Your task to perform on an android device: Go to Yahoo.com Image 0: 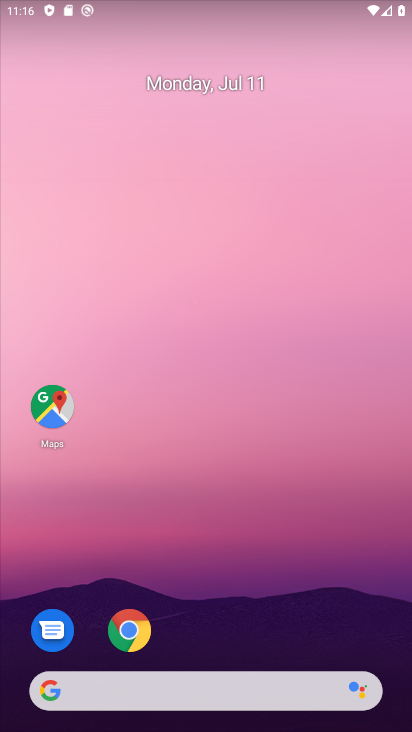
Step 0: click (131, 632)
Your task to perform on an android device: Go to Yahoo.com Image 1: 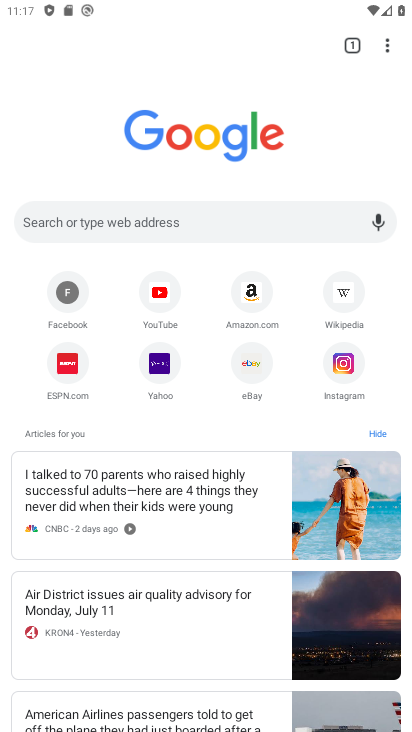
Step 1: click (167, 221)
Your task to perform on an android device: Go to Yahoo.com Image 2: 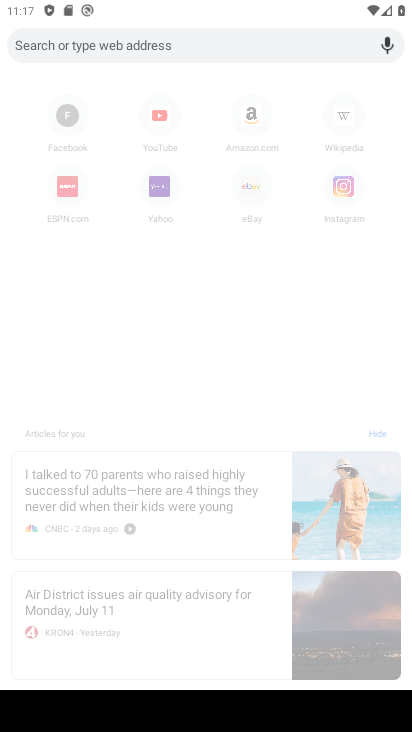
Step 2: type "Yahoo.com"
Your task to perform on an android device: Go to Yahoo.com Image 3: 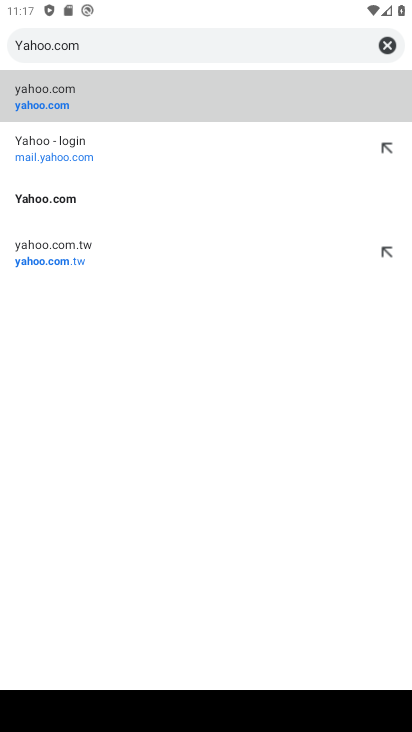
Step 3: click (66, 195)
Your task to perform on an android device: Go to Yahoo.com Image 4: 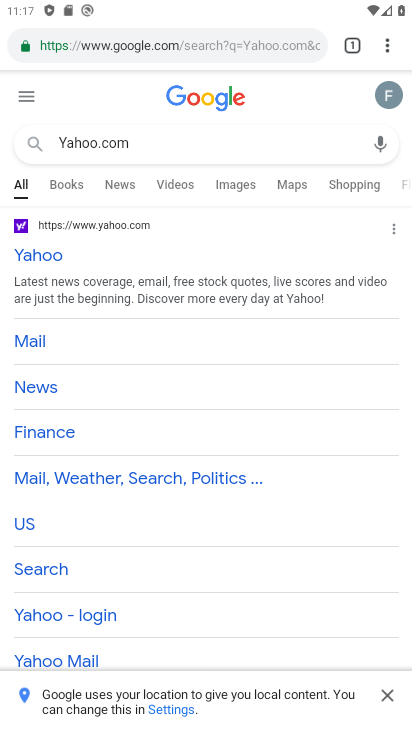
Step 4: click (34, 256)
Your task to perform on an android device: Go to Yahoo.com Image 5: 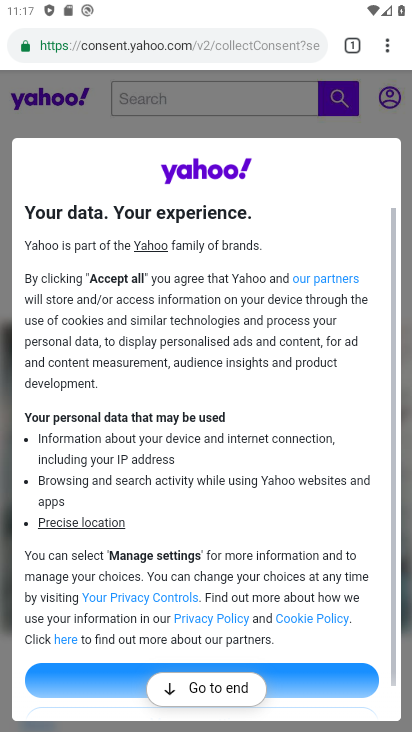
Step 5: click (207, 687)
Your task to perform on an android device: Go to Yahoo.com Image 6: 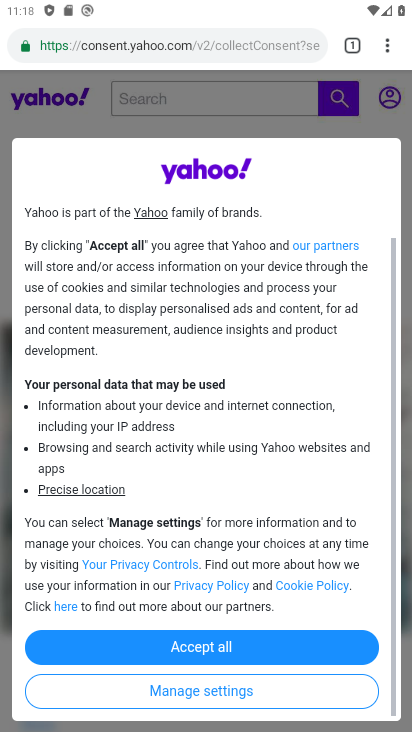
Step 6: click (222, 650)
Your task to perform on an android device: Go to Yahoo.com Image 7: 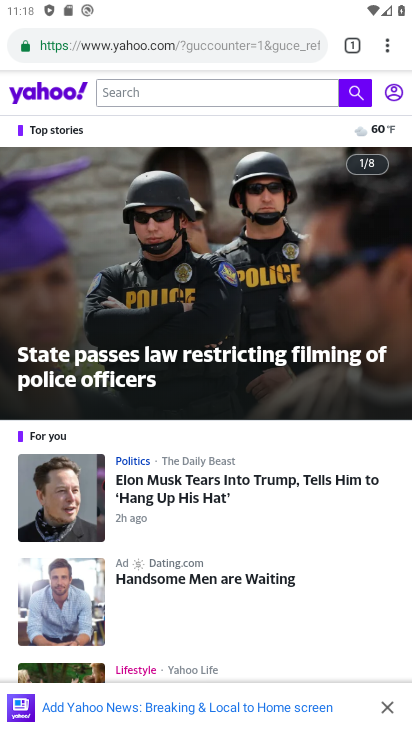
Step 7: task complete